Your task to perform on an android device: Show me popular games on the Play Store Image 0: 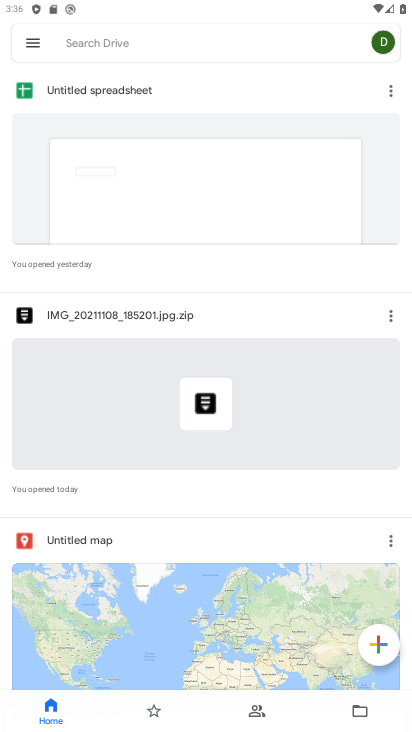
Step 0: press back button
Your task to perform on an android device: Show me popular games on the Play Store Image 1: 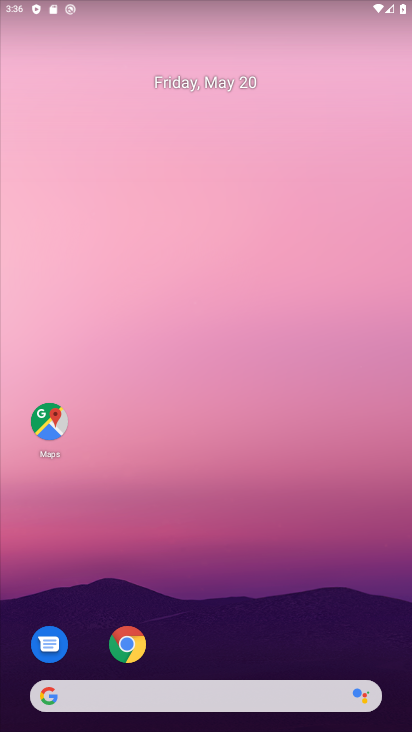
Step 1: drag from (188, 554) to (274, 66)
Your task to perform on an android device: Show me popular games on the Play Store Image 2: 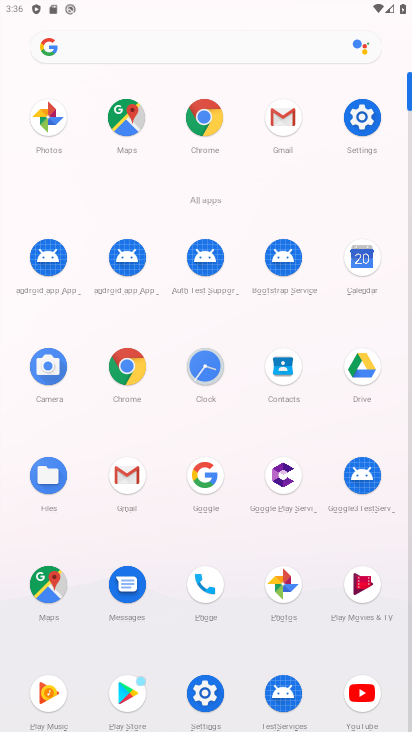
Step 2: click (119, 688)
Your task to perform on an android device: Show me popular games on the Play Store Image 3: 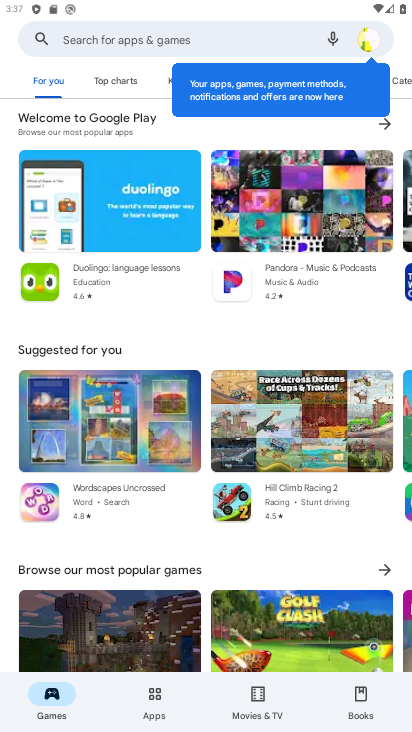
Step 3: click (374, 569)
Your task to perform on an android device: Show me popular games on the Play Store Image 4: 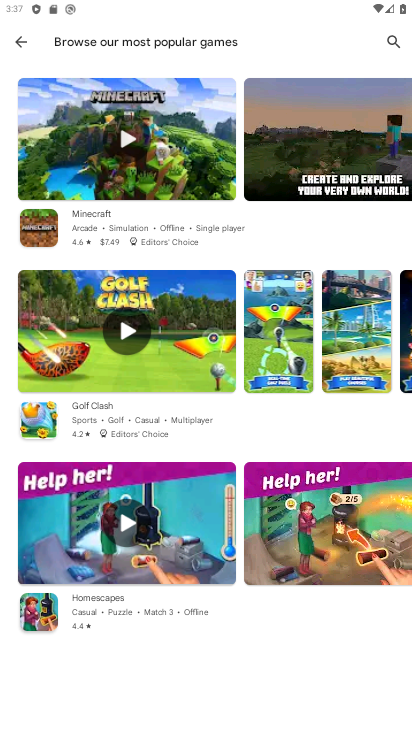
Step 4: task complete